Your task to perform on an android device: allow cookies in the chrome app Image 0: 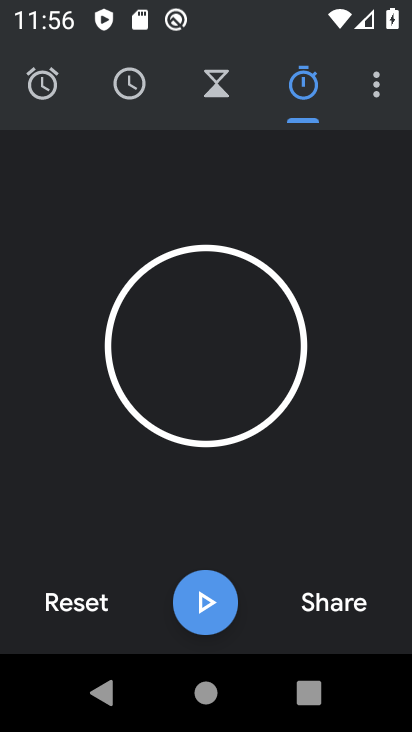
Step 0: press back button
Your task to perform on an android device: allow cookies in the chrome app Image 1: 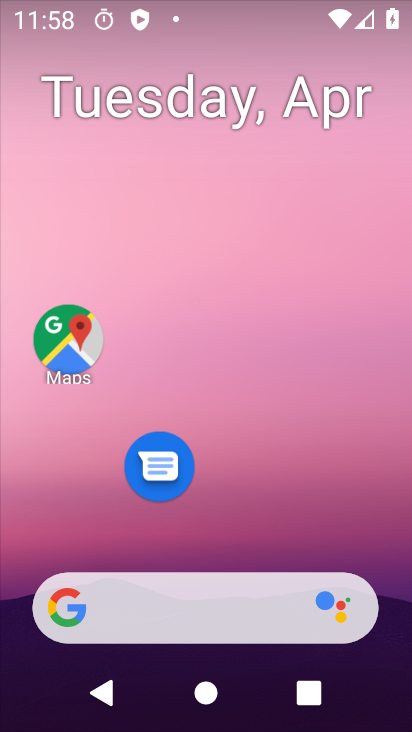
Step 1: drag from (334, 531) to (311, 68)
Your task to perform on an android device: allow cookies in the chrome app Image 2: 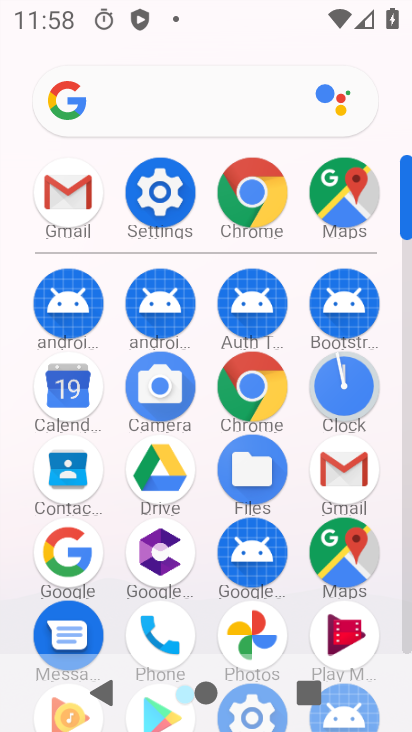
Step 2: click (258, 224)
Your task to perform on an android device: allow cookies in the chrome app Image 3: 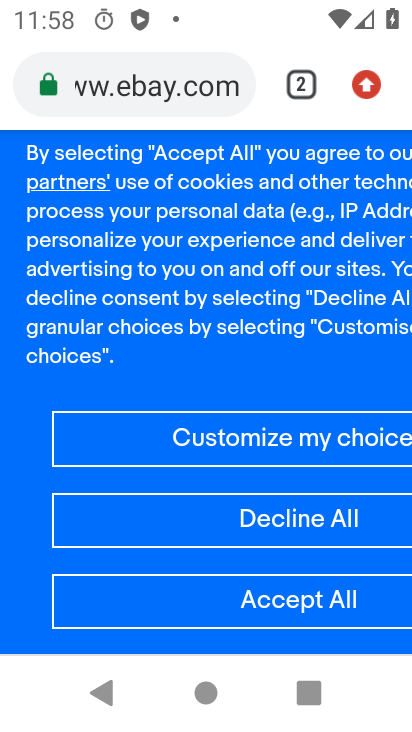
Step 3: click (360, 95)
Your task to perform on an android device: allow cookies in the chrome app Image 4: 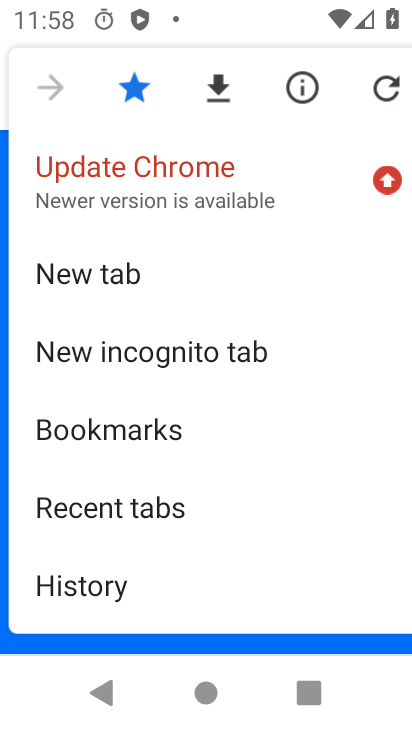
Step 4: drag from (277, 512) to (367, 142)
Your task to perform on an android device: allow cookies in the chrome app Image 5: 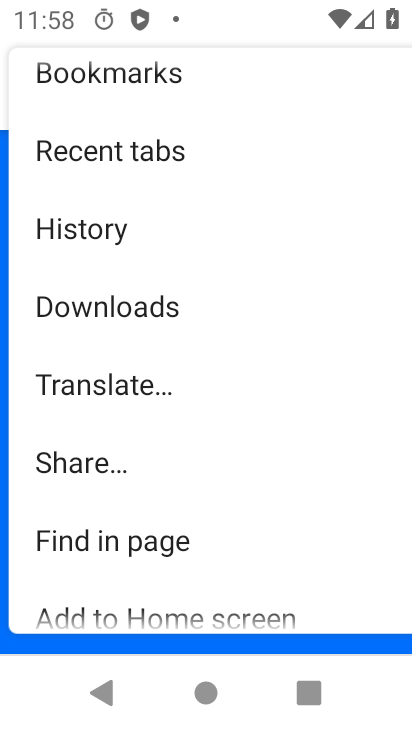
Step 5: drag from (219, 545) to (295, 226)
Your task to perform on an android device: allow cookies in the chrome app Image 6: 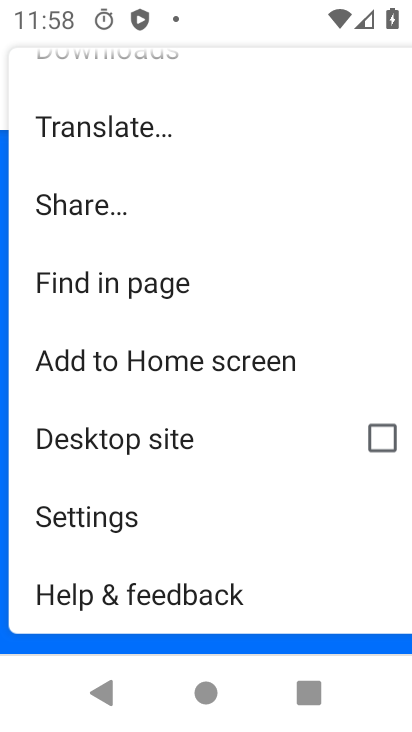
Step 6: click (164, 532)
Your task to perform on an android device: allow cookies in the chrome app Image 7: 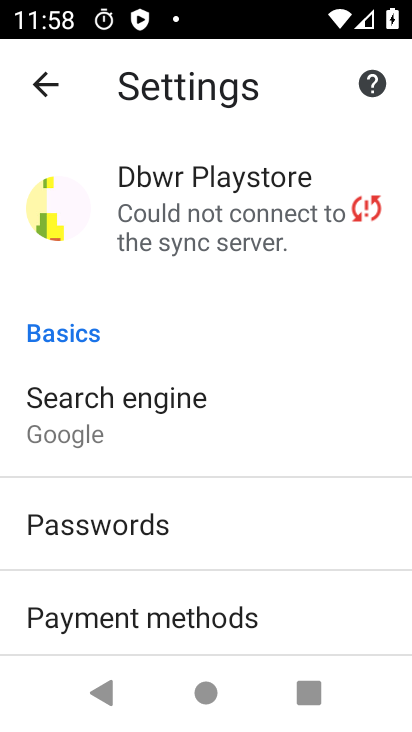
Step 7: drag from (235, 525) to (285, 244)
Your task to perform on an android device: allow cookies in the chrome app Image 8: 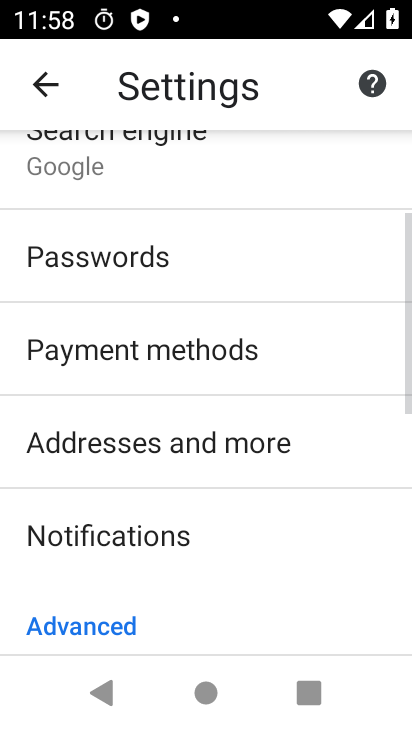
Step 8: drag from (240, 578) to (282, 294)
Your task to perform on an android device: allow cookies in the chrome app Image 9: 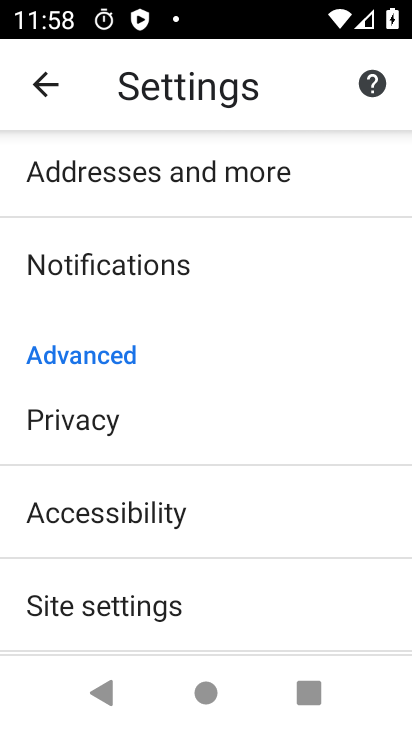
Step 9: drag from (230, 572) to (276, 260)
Your task to perform on an android device: allow cookies in the chrome app Image 10: 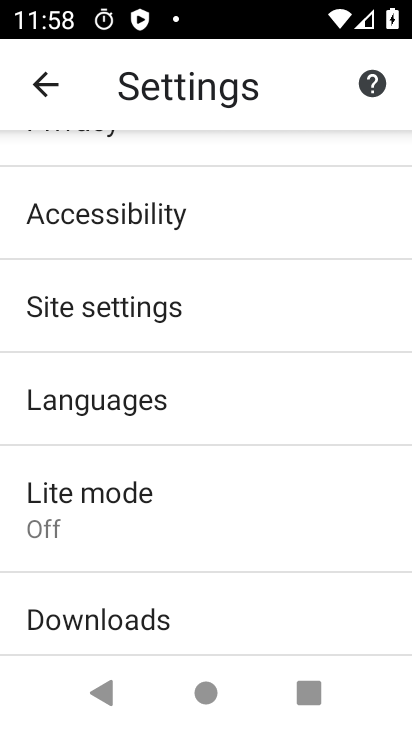
Step 10: click (252, 321)
Your task to perform on an android device: allow cookies in the chrome app Image 11: 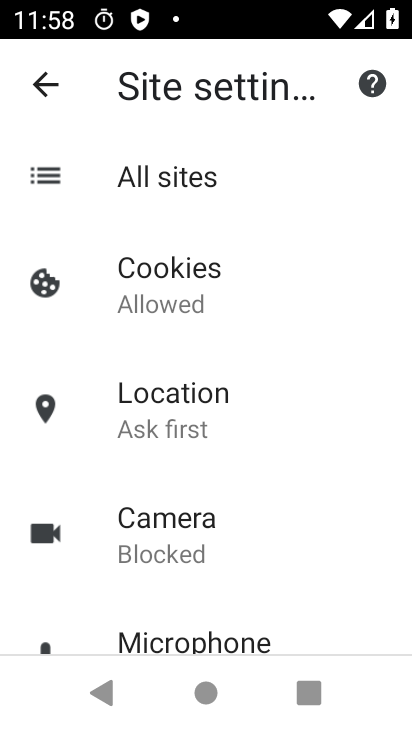
Step 11: task complete